Your task to perform on an android device: Open Maps and search for coffee Image 0: 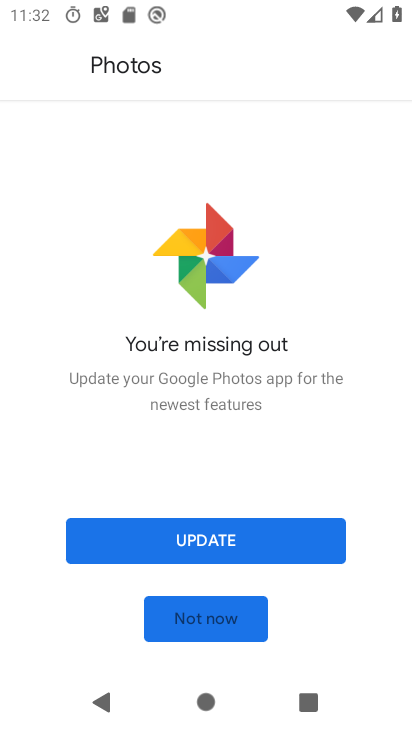
Step 0: press home button
Your task to perform on an android device: Open Maps and search for coffee Image 1: 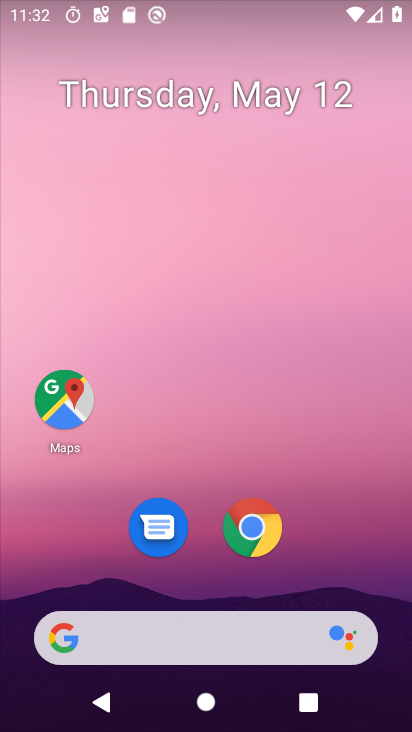
Step 1: click (67, 431)
Your task to perform on an android device: Open Maps and search for coffee Image 2: 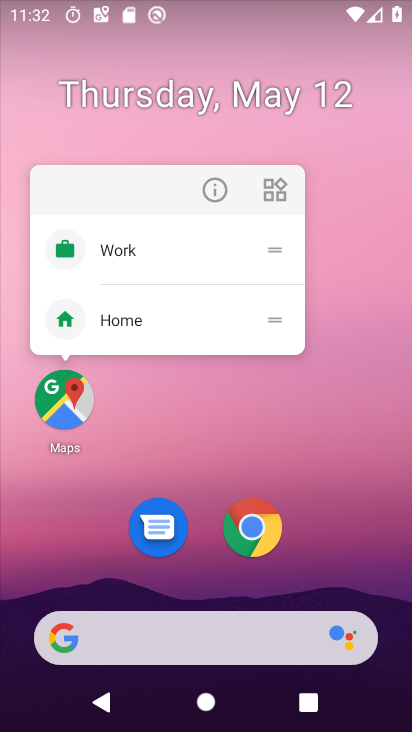
Step 2: click (55, 417)
Your task to perform on an android device: Open Maps and search for coffee Image 3: 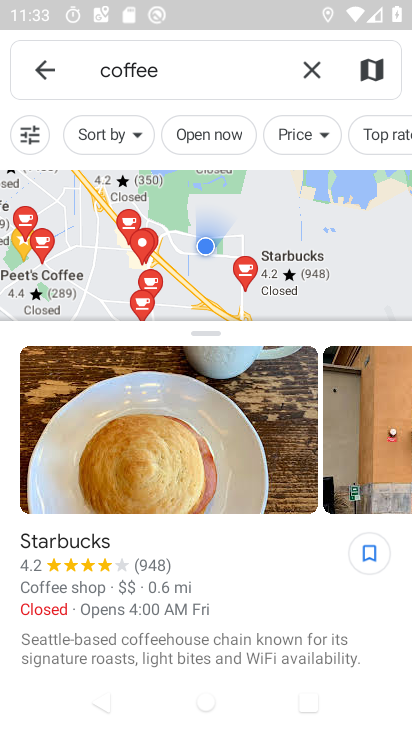
Step 3: task complete